Your task to perform on an android device: Toggle the flashlight Image 0: 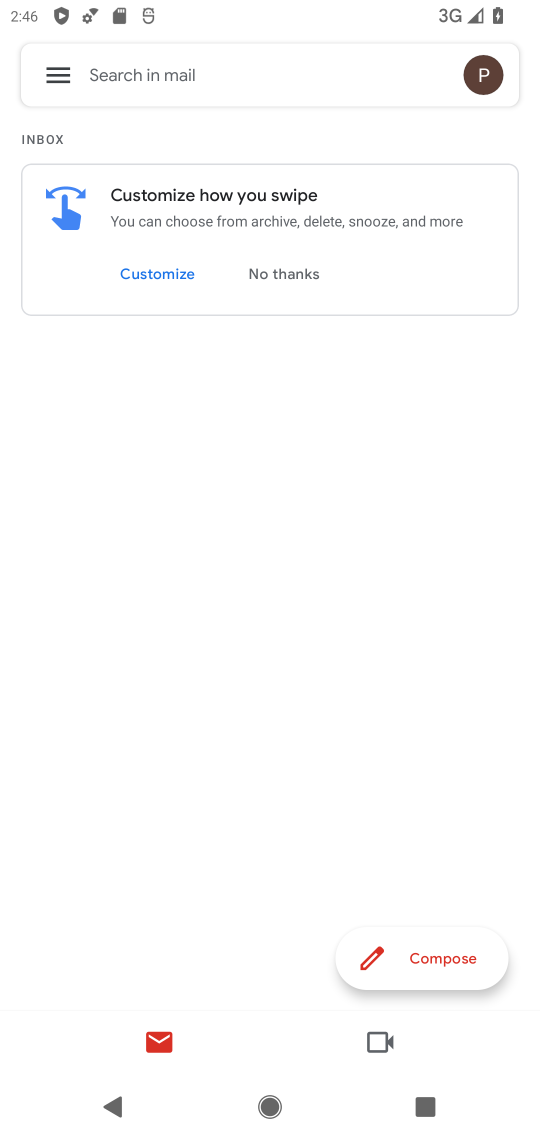
Step 0: press home button
Your task to perform on an android device: Toggle the flashlight Image 1: 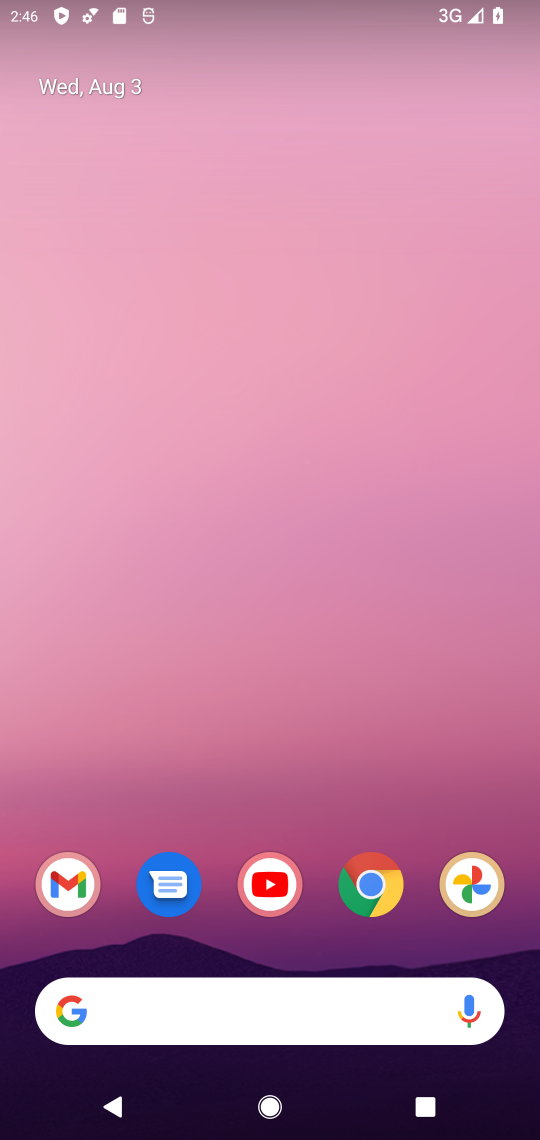
Step 1: drag from (328, 963) to (303, 78)
Your task to perform on an android device: Toggle the flashlight Image 2: 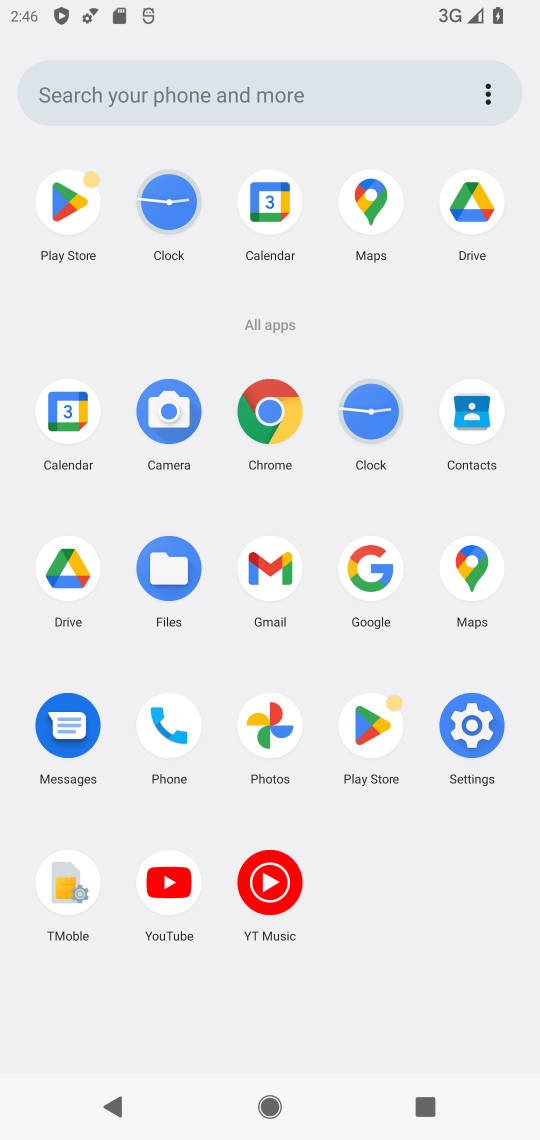
Step 2: click (459, 734)
Your task to perform on an android device: Toggle the flashlight Image 3: 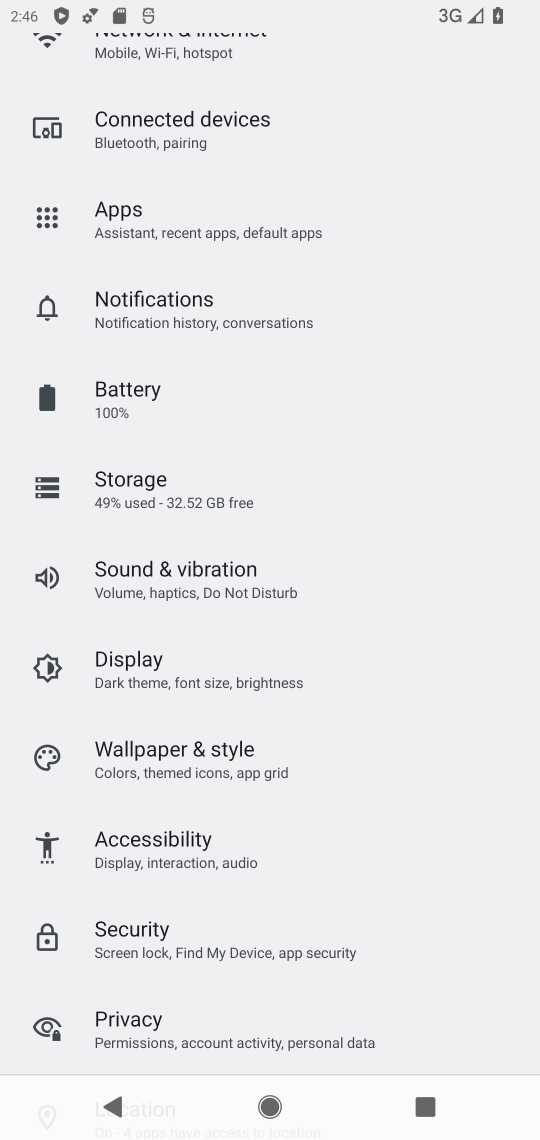
Step 3: task complete